Your task to perform on an android device: find which apps use the phone's location Image 0: 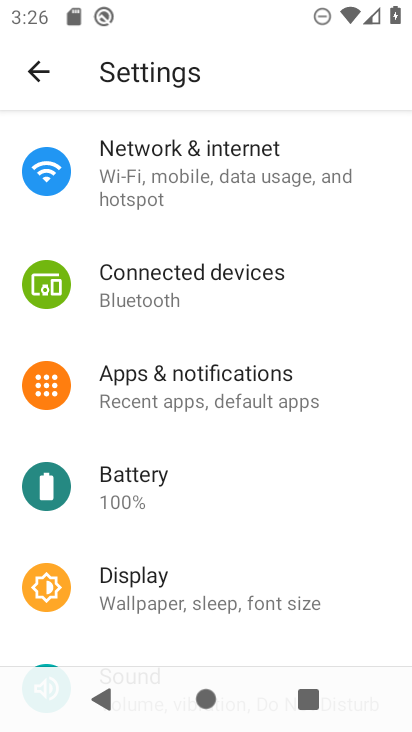
Step 0: drag from (217, 476) to (290, 253)
Your task to perform on an android device: find which apps use the phone's location Image 1: 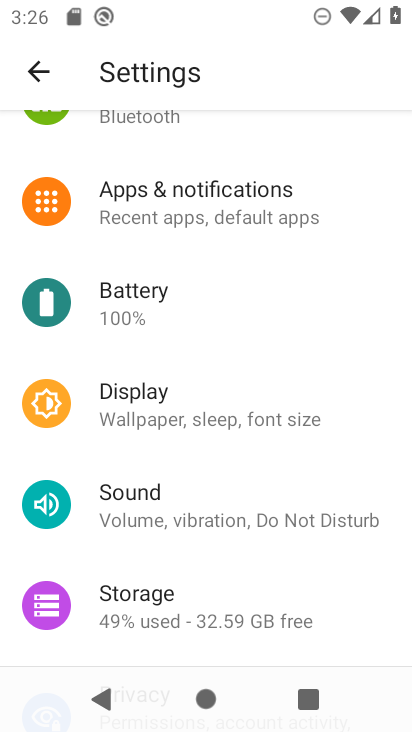
Step 1: drag from (232, 522) to (283, 313)
Your task to perform on an android device: find which apps use the phone's location Image 2: 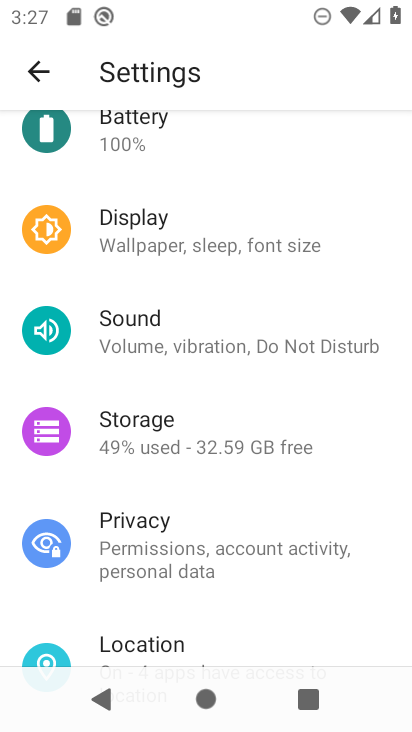
Step 2: drag from (218, 537) to (270, 272)
Your task to perform on an android device: find which apps use the phone's location Image 3: 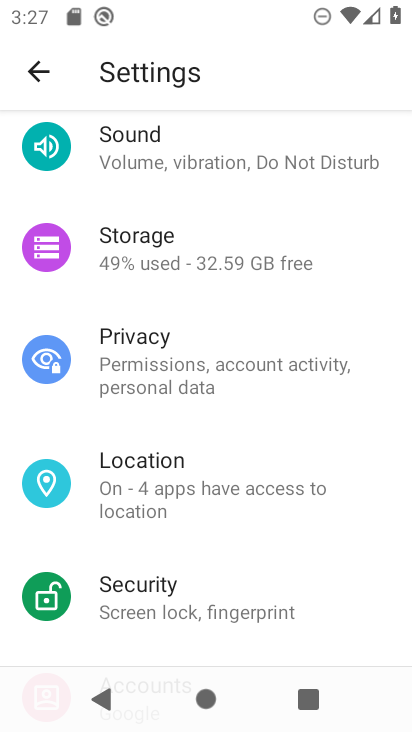
Step 3: click (172, 618)
Your task to perform on an android device: find which apps use the phone's location Image 4: 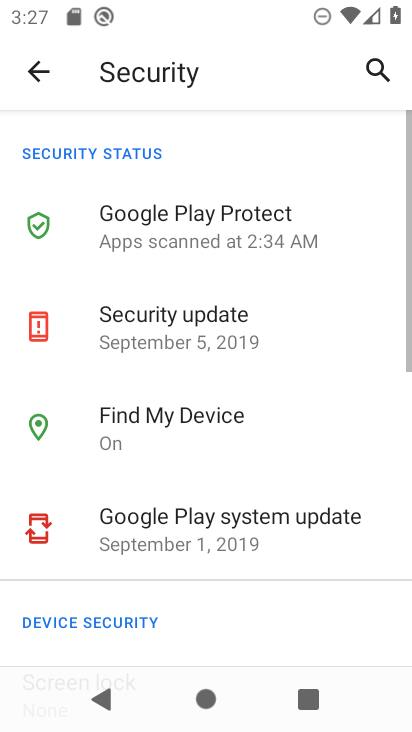
Step 4: click (43, 65)
Your task to perform on an android device: find which apps use the phone's location Image 5: 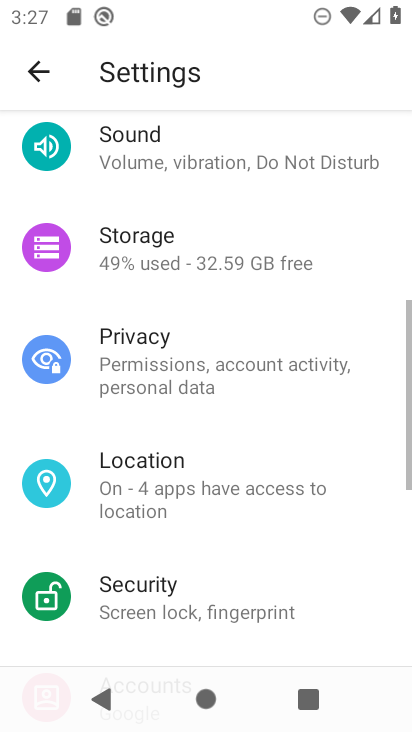
Step 5: click (187, 489)
Your task to perform on an android device: find which apps use the phone's location Image 6: 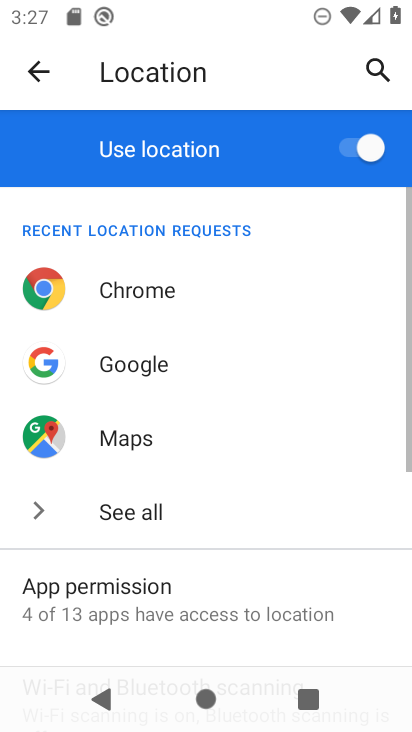
Step 6: drag from (242, 579) to (238, 320)
Your task to perform on an android device: find which apps use the phone's location Image 7: 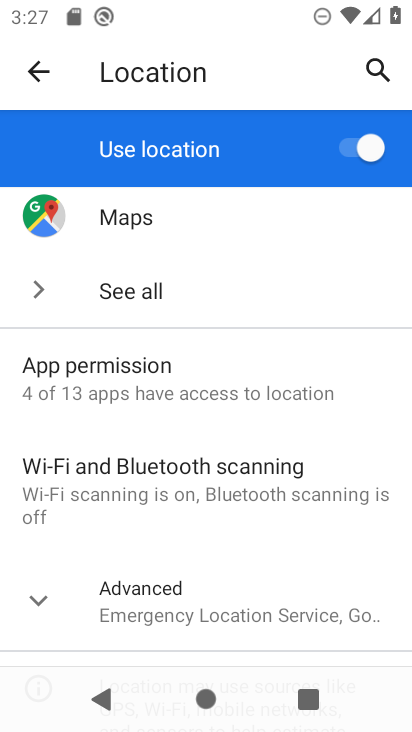
Step 7: click (187, 403)
Your task to perform on an android device: find which apps use the phone's location Image 8: 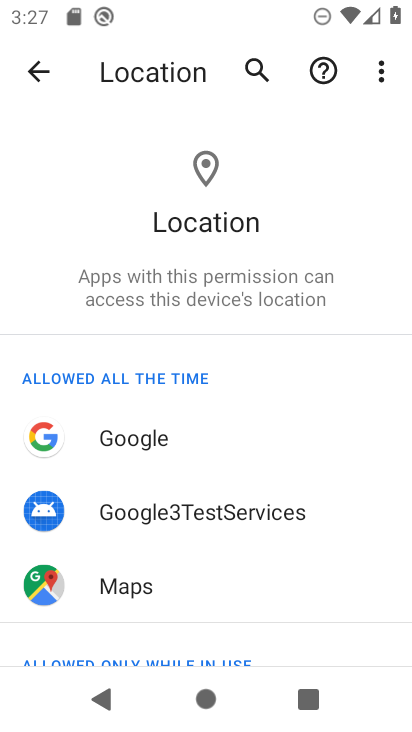
Step 8: task complete